Your task to perform on an android device: read, delete, or share a saved page in the chrome app Image 0: 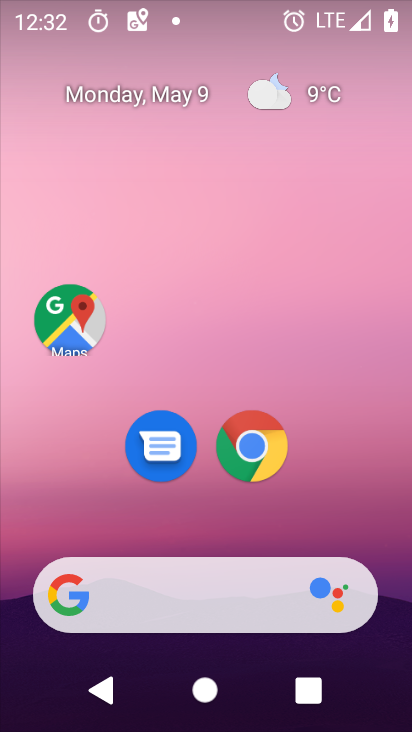
Step 0: click (247, 449)
Your task to perform on an android device: read, delete, or share a saved page in the chrome app Image 1: 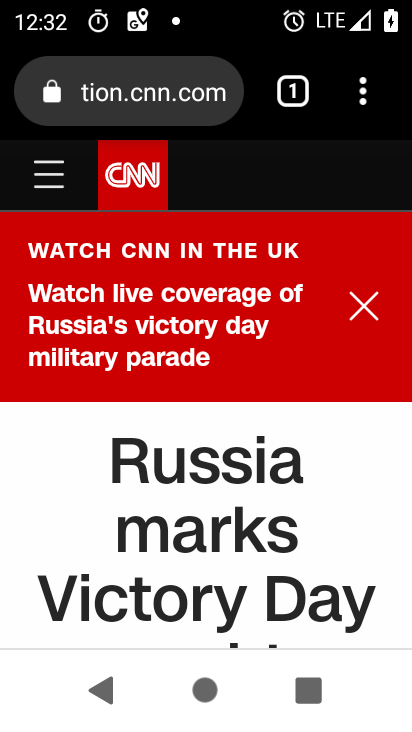
Step 1: drag from (370, 91) to (87, 512)
Your task to perform on an android device: read, delete, or share a saved page in the chrome app Image 2: 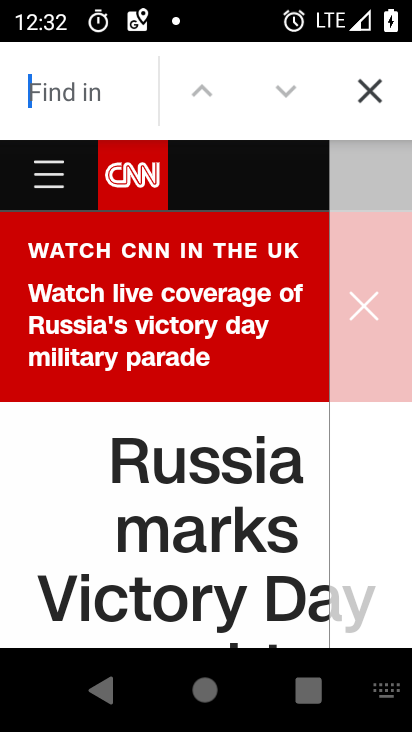
Step 2: click (363, 96)
Your task to perform on an android device: read, delete, or share a saved page in the chrome app Image 3: 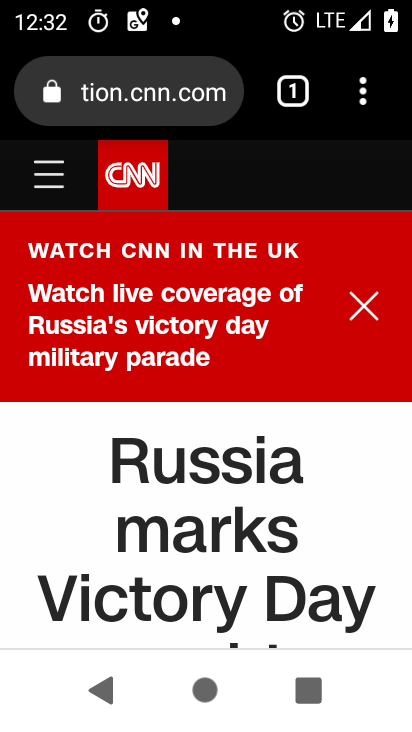
Step 3: drag from (363, 96) to (134, 225)
Your task to perform on an android device: read, delete, or share a saved page in the chrome app Image 4: 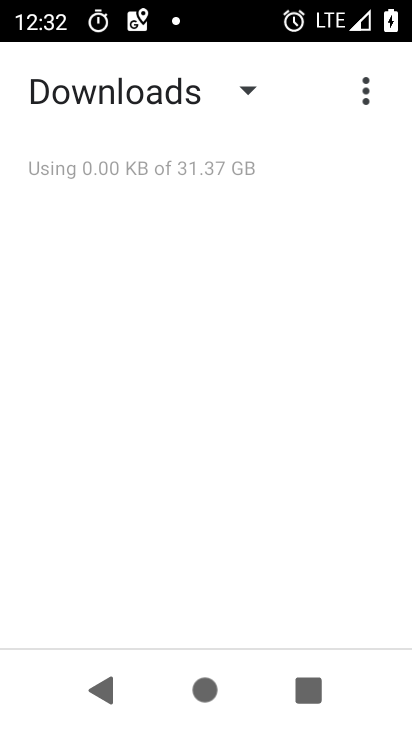
Step 4: click (240, 94)
Your task to perform on an android device: read, delete, or share a saved page in the chrome app Image 5: 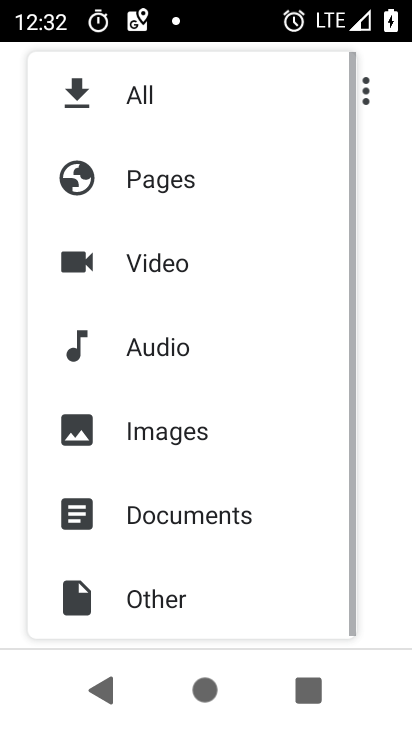
Step 5: click (144, 180)
Your task to perform on an android device: read, delete, or share a saved page in the chrome app Image 6: 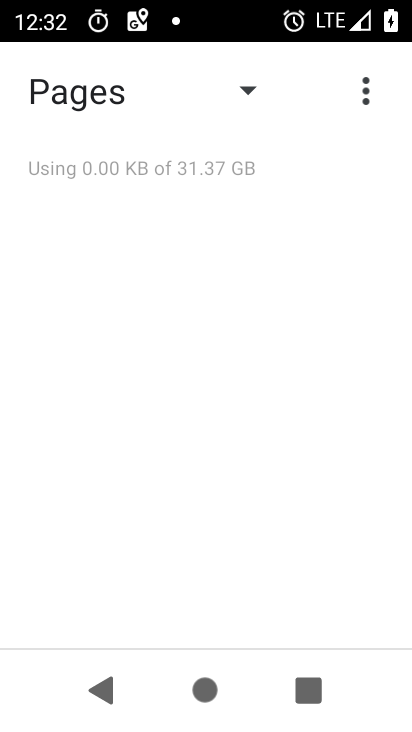
Step 6: task complete